Your task to perform on an android device: open app "YouTube Kids" Image 0: 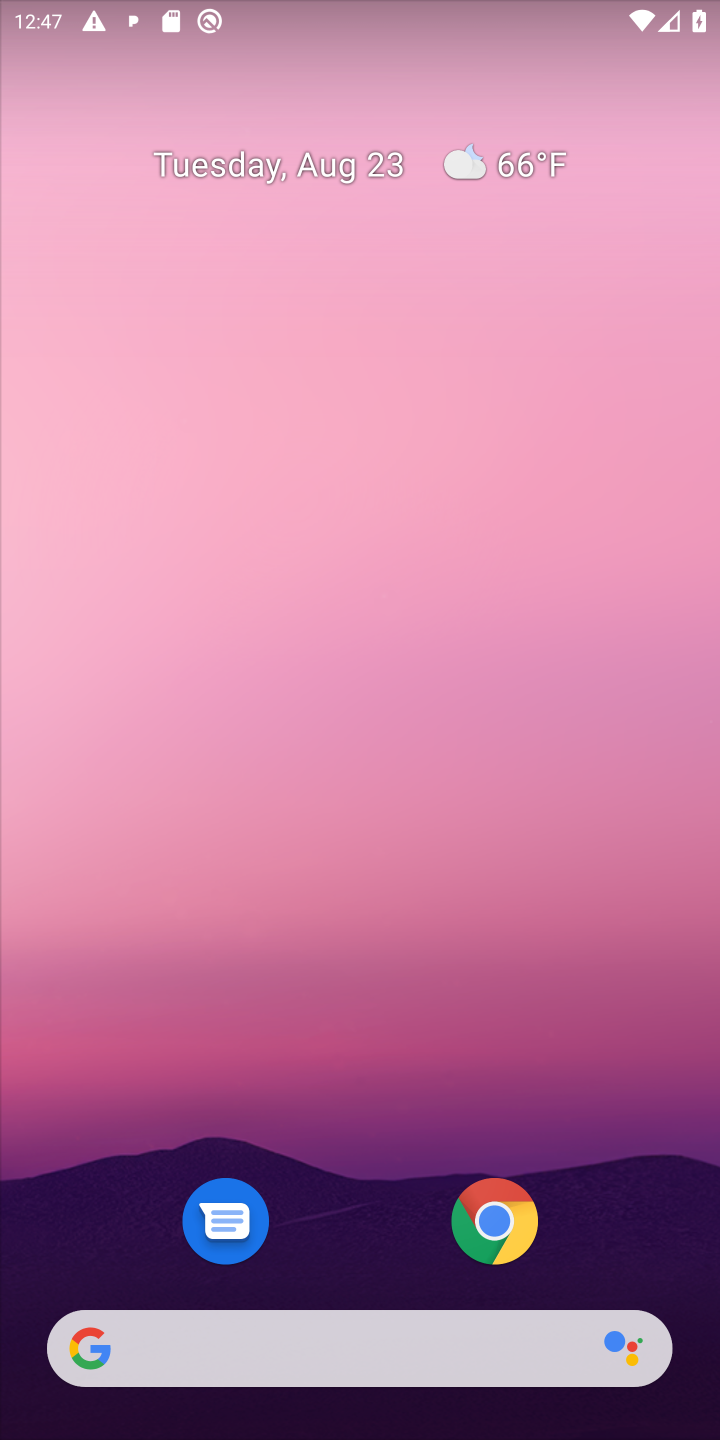
Step 0: drag from (392, 987) to (596, 124)
Your task to perform on an android device: open app "YouTube Kids" Image 1: 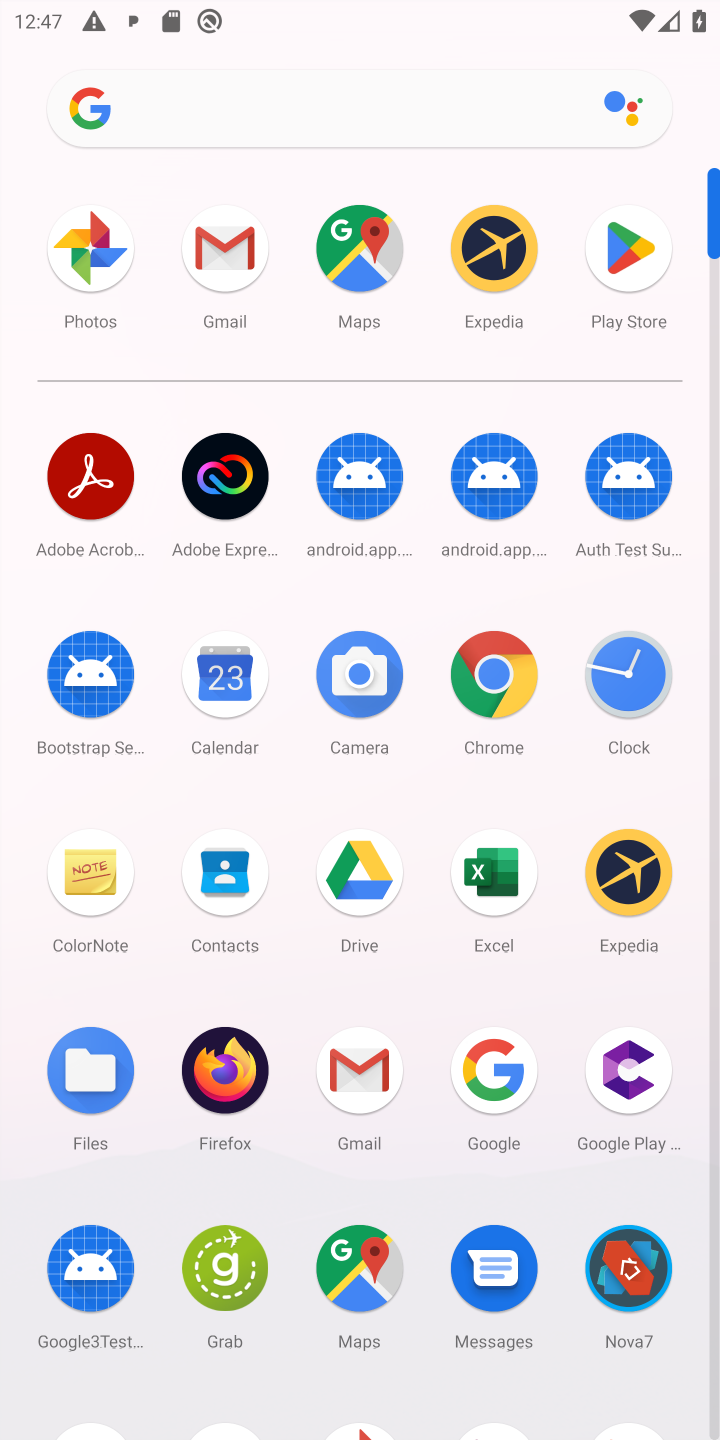
Step 1: click (620, 246)
Your task to perform on an android device: open app "YouTube Kids" Image 2: 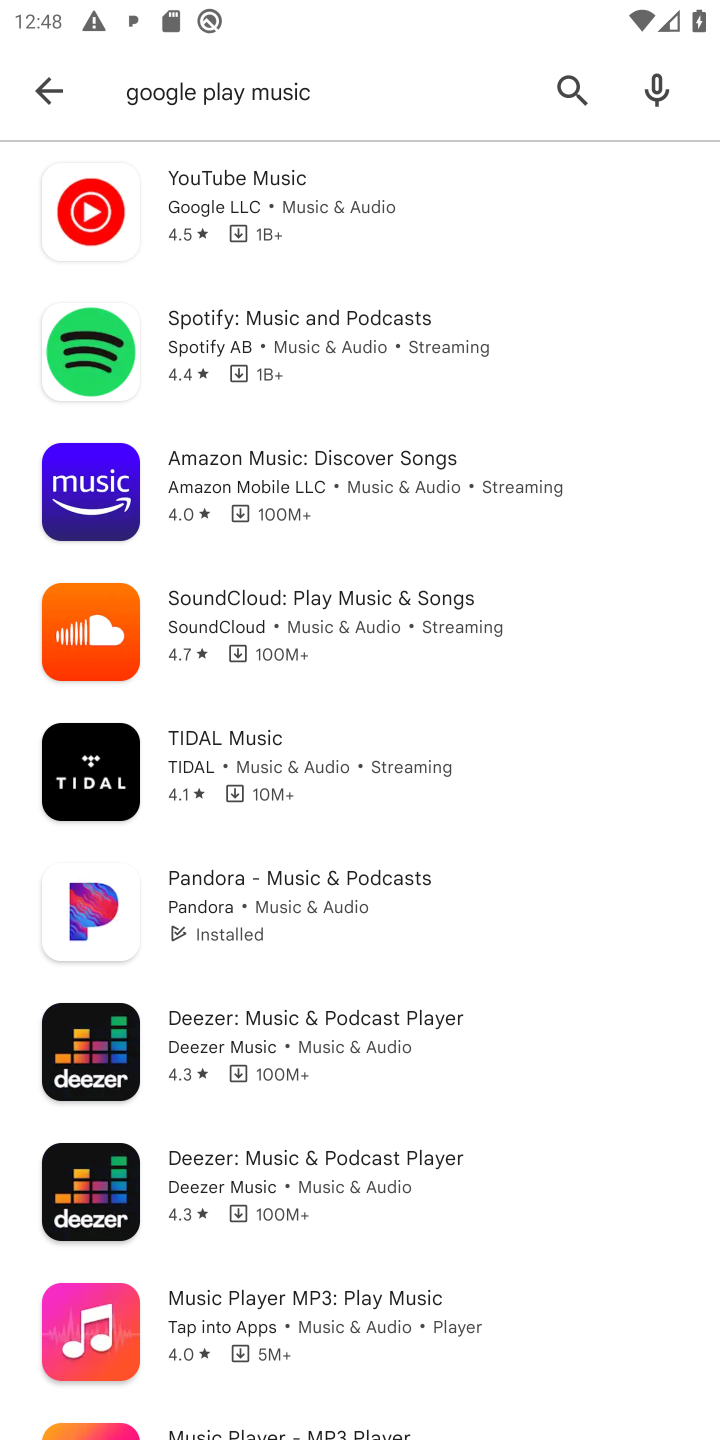
Step 2: click (576, 78)
Your task to perform on an android device: open app "YouTube Kids" Image 3: 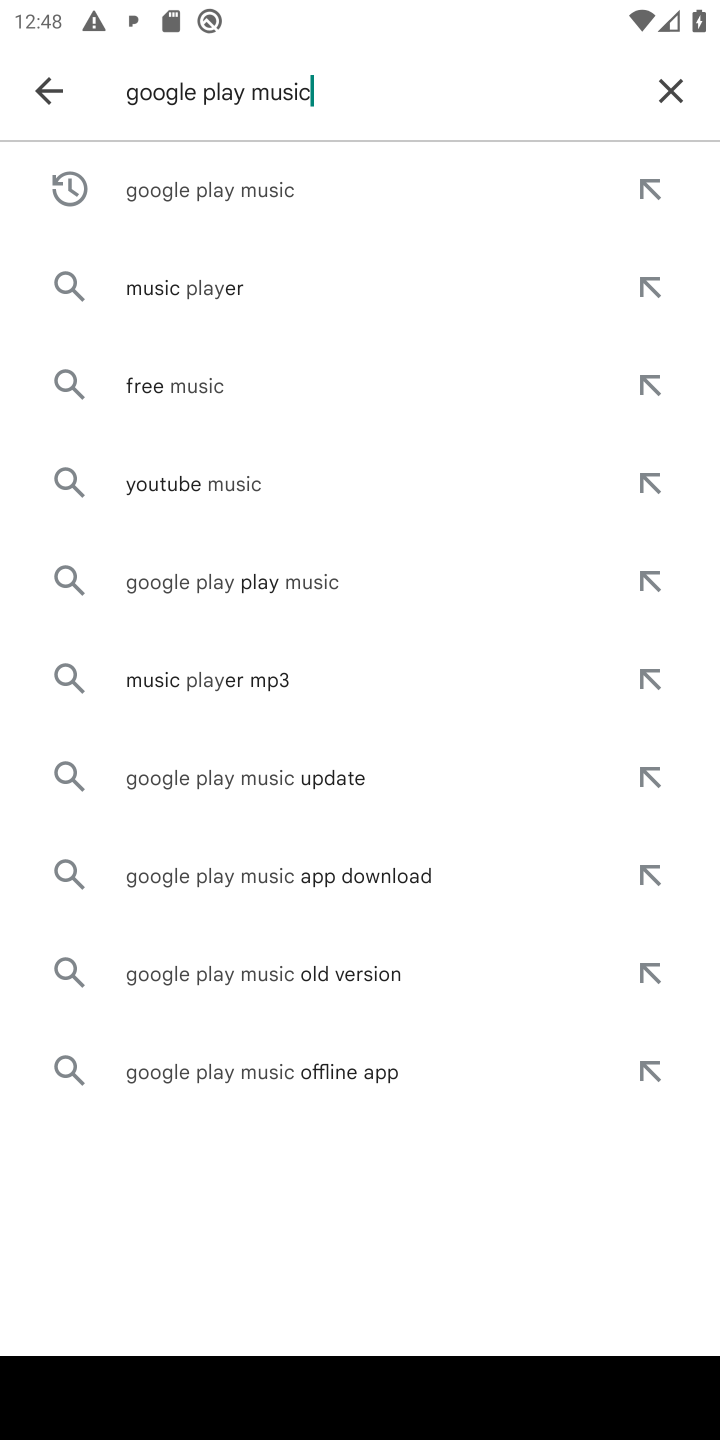
Step 3: click (671, 77)
Your task to perform on an android device: open app "YouTube Kids" Image 4: 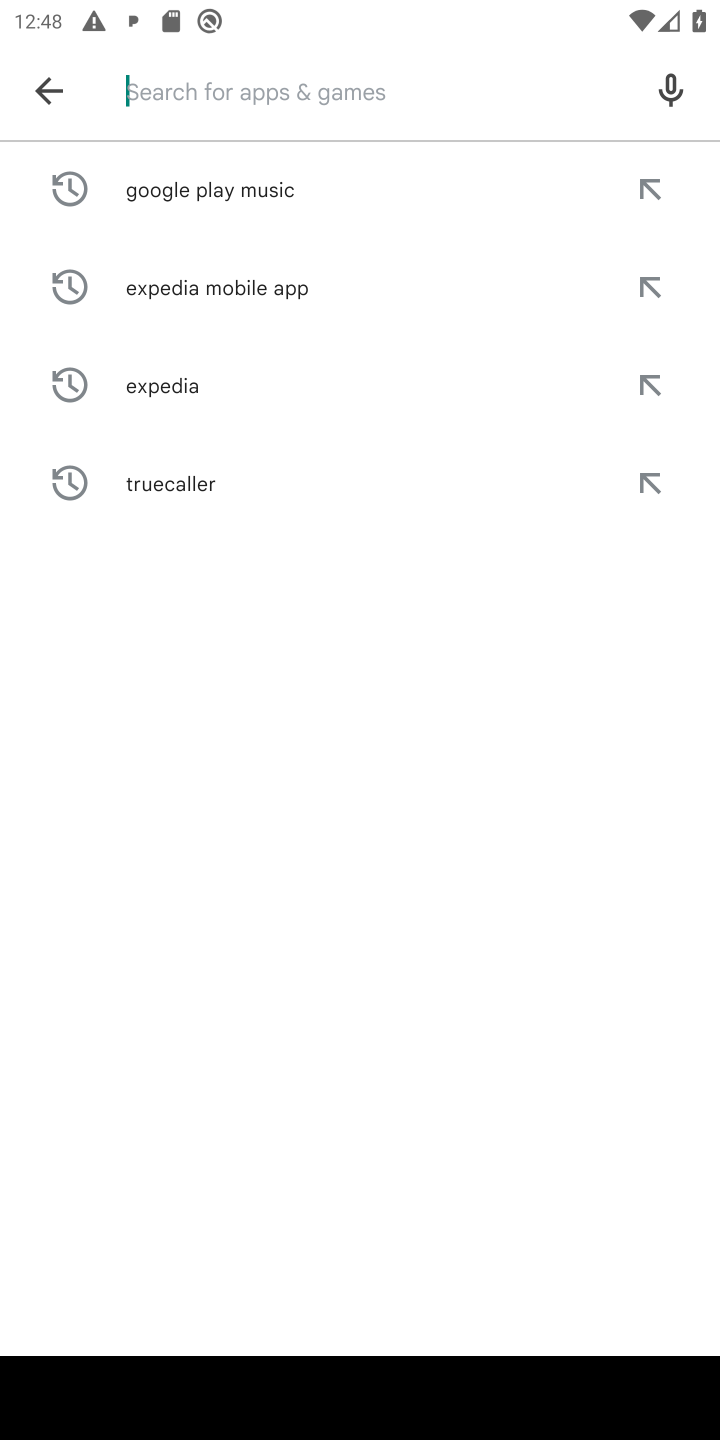
Step 4: click (223, 78)
Your task to perform on an android device: open app "YouTube Kids" Image 5: 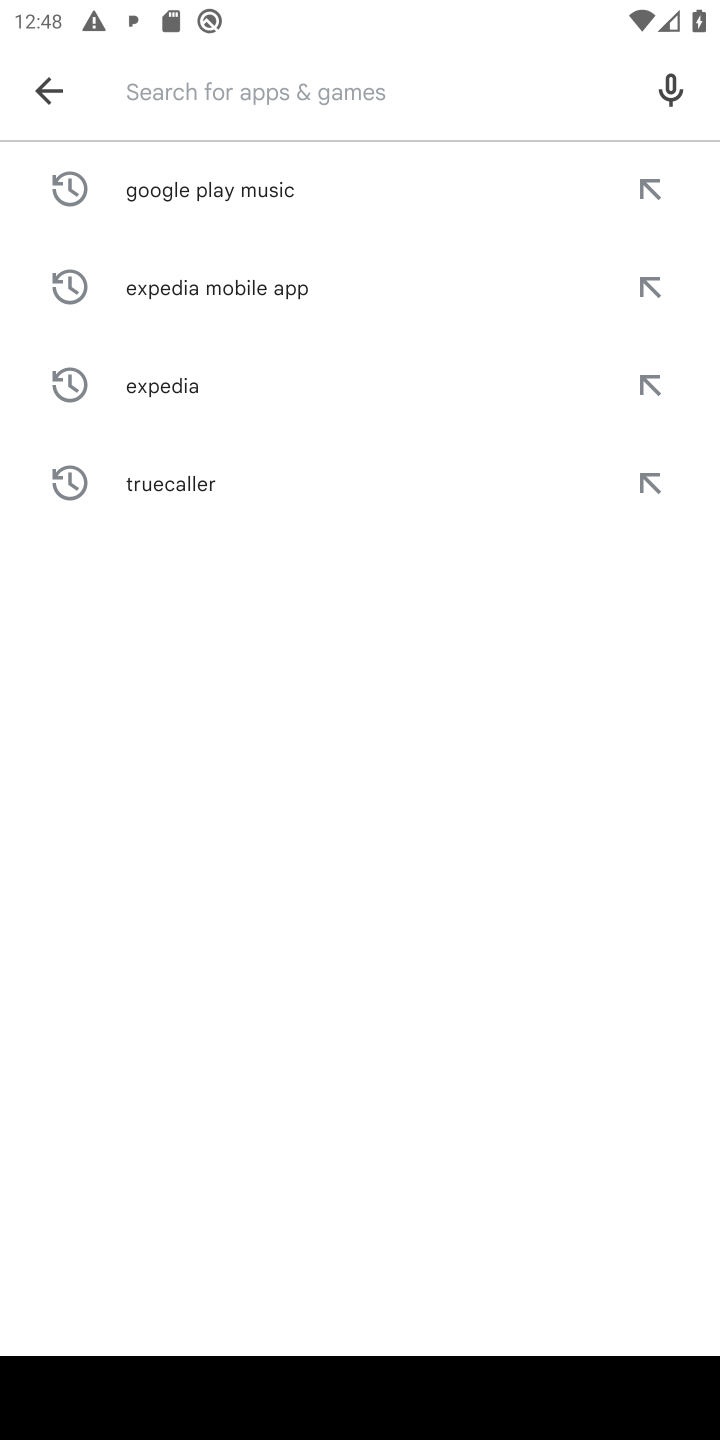
Step 5: type "YouTube Kids"
Your task to perform on an android device: open app "YouTube Kids" Image 6: 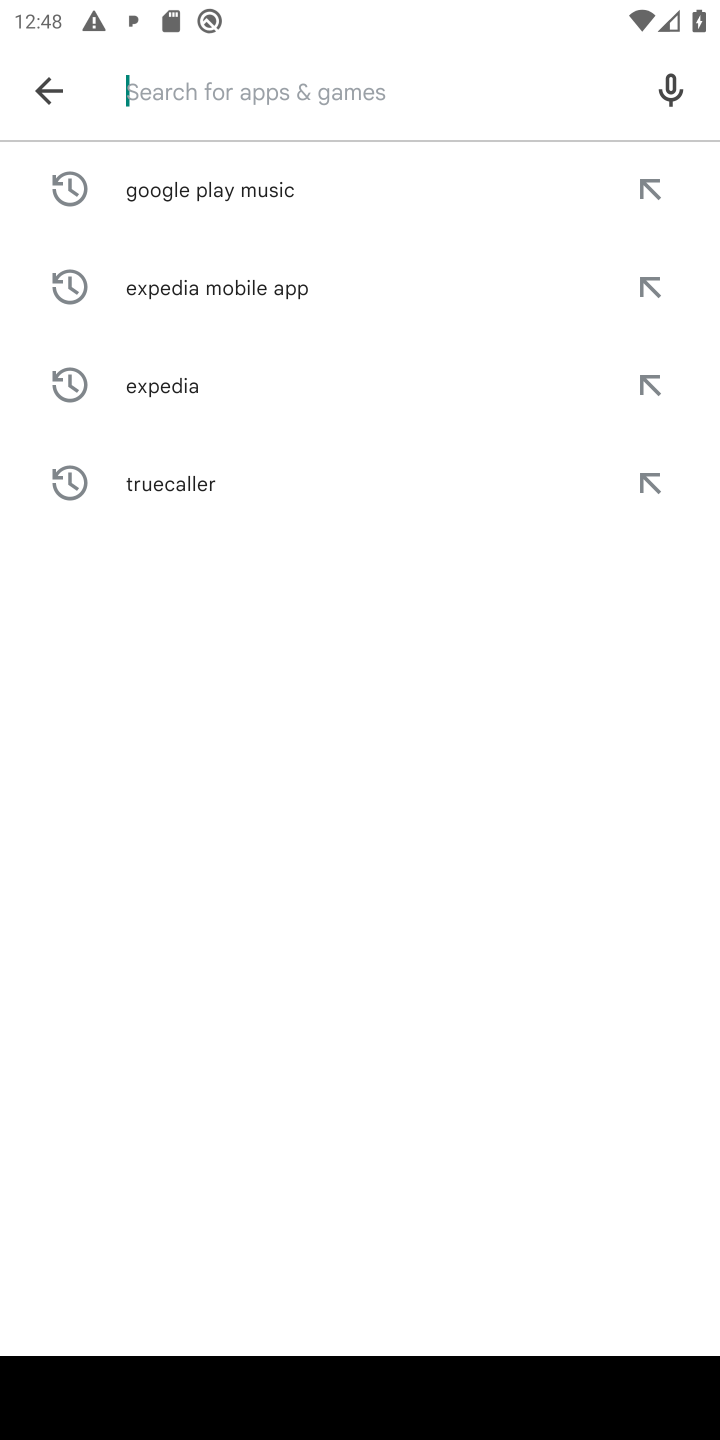
Step 6: click (399, 1066)
Your task to perform on an android device: open app "YouTube Kids" Image 7: 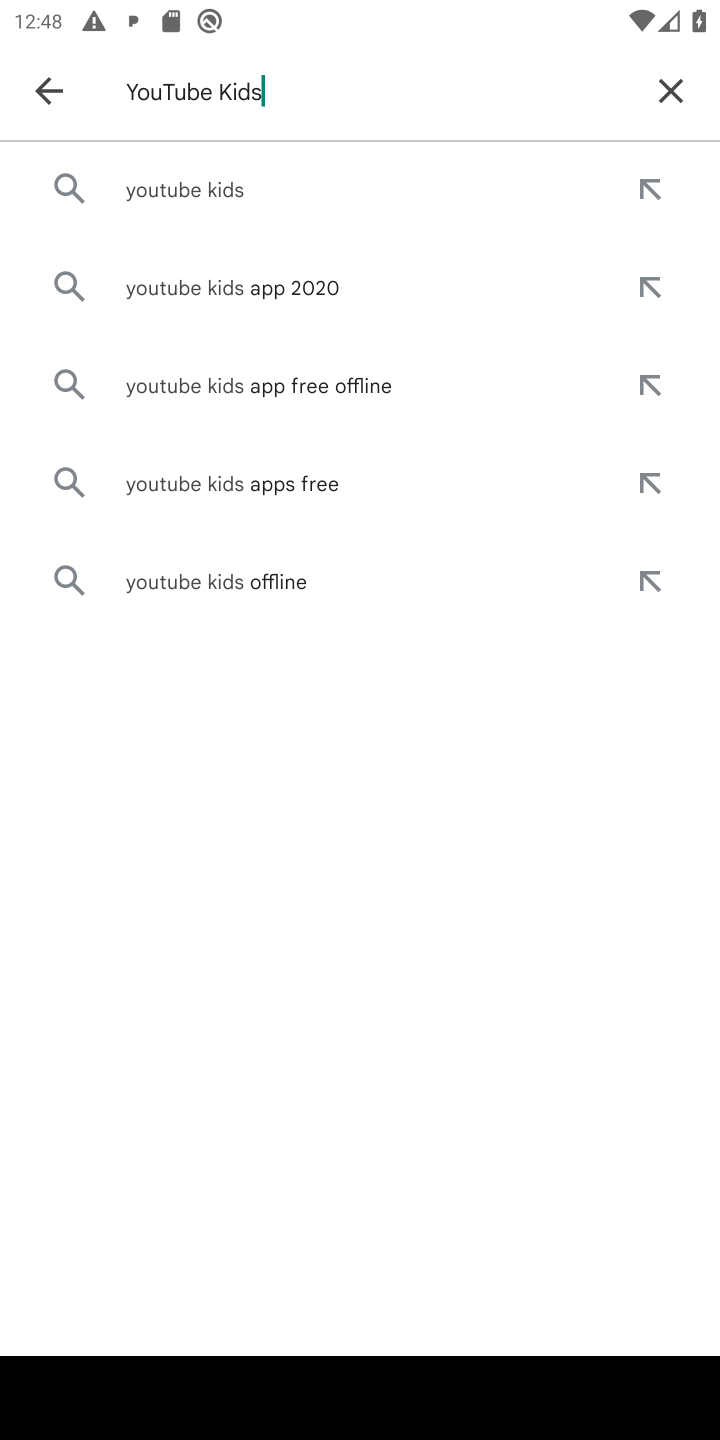
Step 7: click (214, 190)
Your task to perform on an android device: open app "YouTube Kids" Image 8: 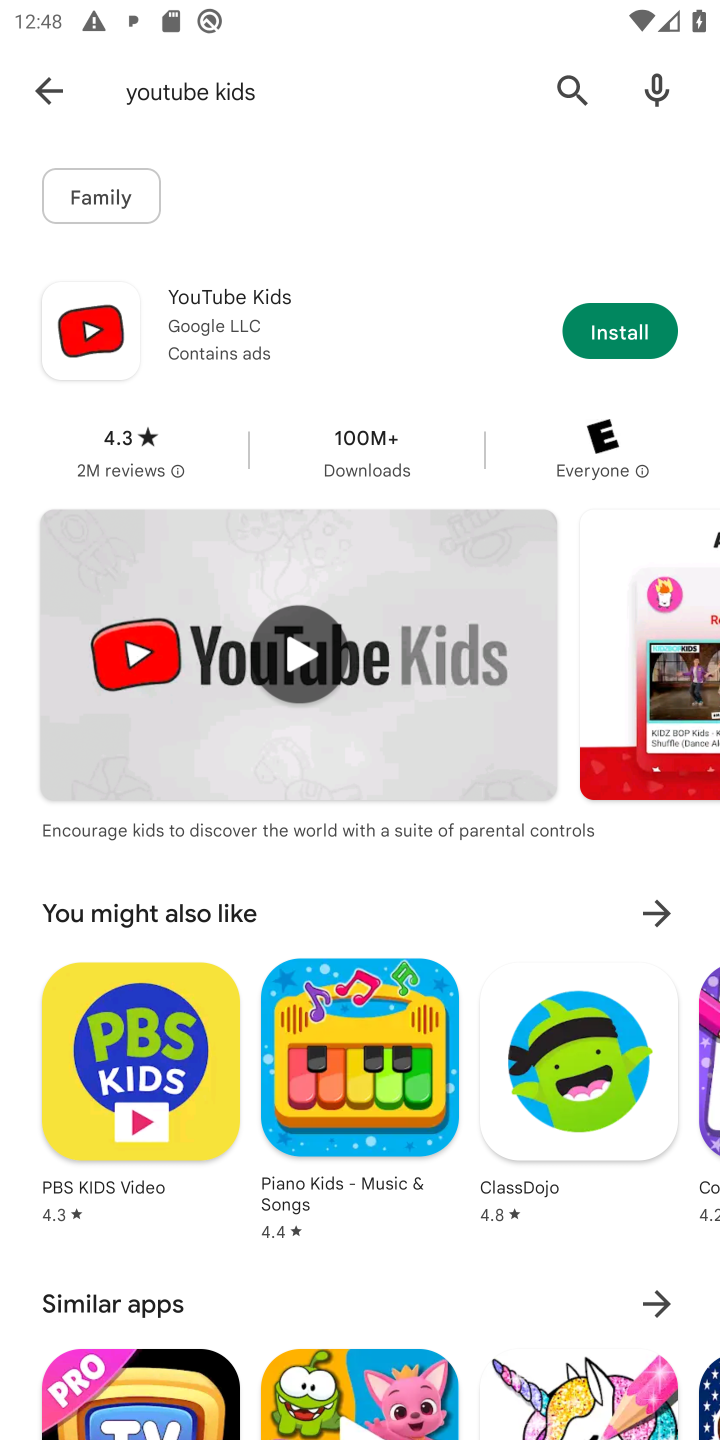
Step 8: task complete